Your task to perform on an android device: Search for "bose soundlink" on bestbuy.com, select the first entry, and add it to the cart. Image 0: 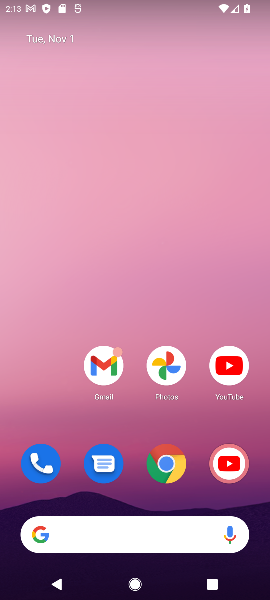
Step 0: drag from (148, 339) to (127, 58)
Your task to perform on an android device: Search for "bose soundlink" on bestbuy.com, select the first entry, and add it to the cart. Image 1: 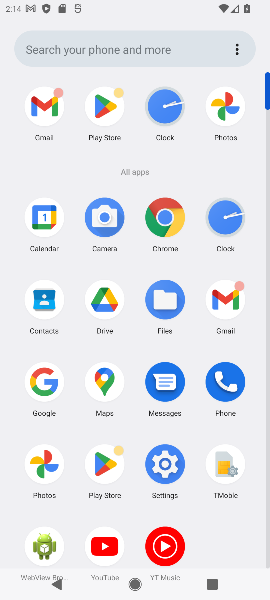
Step 1: click (165, 210)
Your task to perform on an android device: Search for "bose soundlink" on bestbuy.com, select the first entry, and add it to the cart. Image 2: 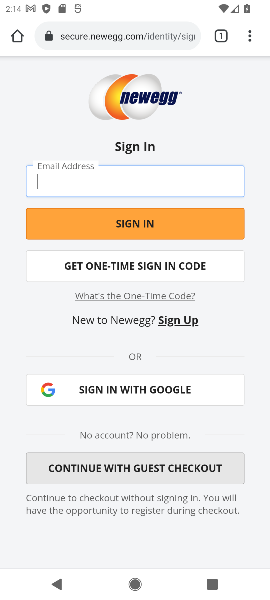
Step 2: click (115, 38)
Your task to perform on an android device: Search for "bose soundlink" on bestbuy.com, select the first entry, and add it to the cart. Image 3: 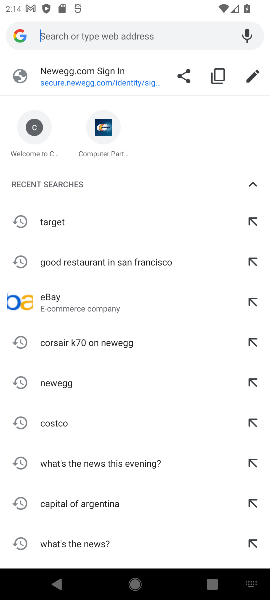
Step 3: type "bestbuy.com"
Your task to perform on an android device: Search for "bose soundlink" on bestbuy.com, select the first entry, and add it to the cart. Image 4: 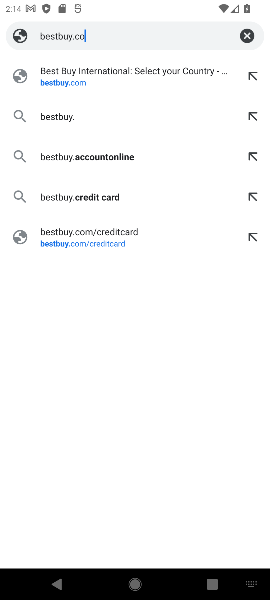
Step 4: press enter
Your task to perform on an android device: Search for "bose soundlink" on bestbuy.com, select the first entry, and add it to the cart. Image 5: 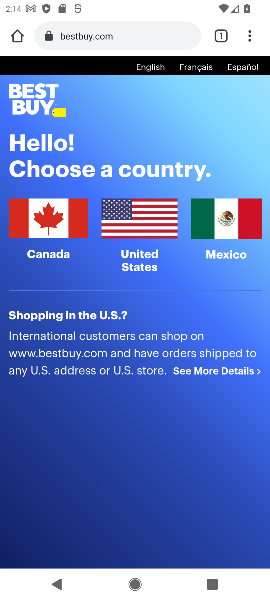
Step 5: click (63, 214)
Your task to perform on an android device: Search for "bose soundlink" on bestbuy.com, select the first entry, and add it to the cart. Image 6: 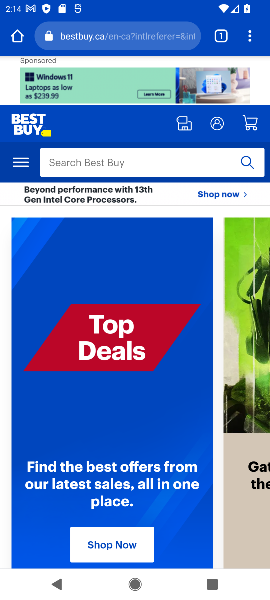
Step 6: click (134, 167)
Your task to perform on an android device: Search for "bose soundlink" on bestbuy.com, select the first entry, and add it to the cart. Image 7: 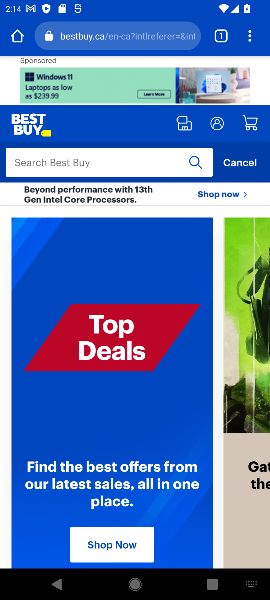
Step 7: type "bose soundlink"
Your task to perform on an android device: Search for "bose soundlink" on bestbuy.com, select the first entry, and add it to the cart. Image 8: 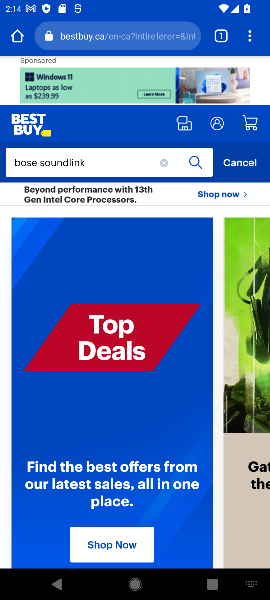
Step 8: press enter
Your task to perform on an android device: Search for "bose soundlink" on bestbuy.com, select the first entry, and add it to the cart. Image 9: 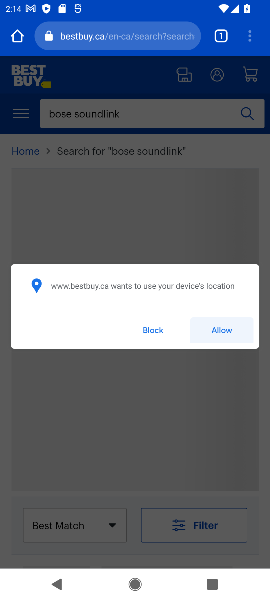
Step 9: click (154, 331)
Your task to perform on an android device: Search for "bose soundlink" on bestbuy.com, select the first entry, and add it to the cart. Image 10: 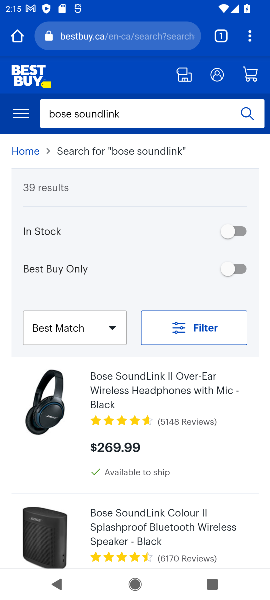
Step 10: click (54, 395)
Your task to perform on an android device: Search for "bose soundlink" on bestbuy.com, select the first entry, and add it to the cart. Image 11: 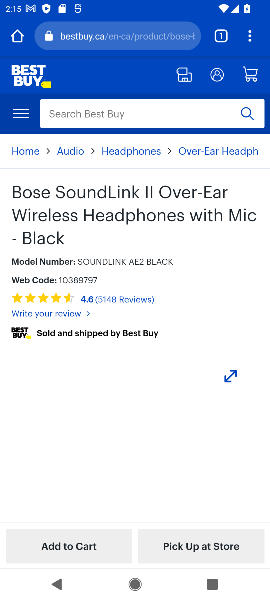
Step 11: drag from (162, 457) to (190, 123)
Your task to perform on an android device: Search for "bose soundlink" on bestbuy.com, select the first entry, and add it to the cart. Image 12: 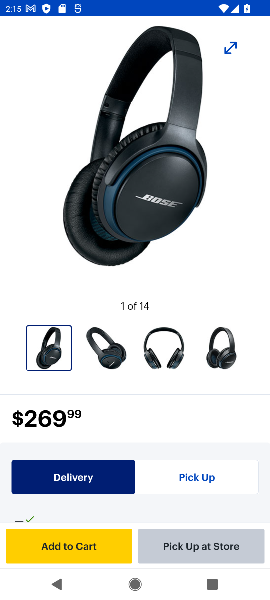
Step 12: click (68, 553)
Your task to perform on an android device: Search for "bose soundlink" on bestbuy.com, select the first entry, and add it to the cart. Image 13: 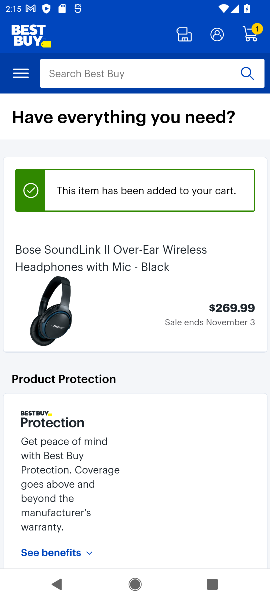
Step 13: task complete